Your task to perform on an android device: Open settings on Google Maps Image 0: 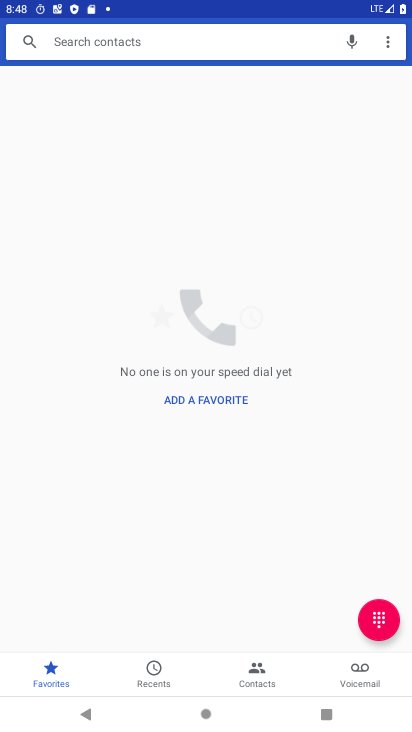
Step 0: press home button
Your task to perform on an android device: Open settings on Google Maps Image 1: 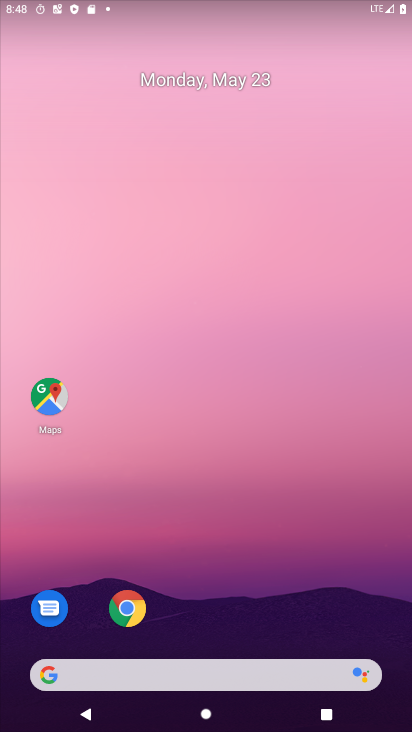
Step 1: click (45, 398)
Your task to perform on an android device: Open settings on Google Maps Image 2: 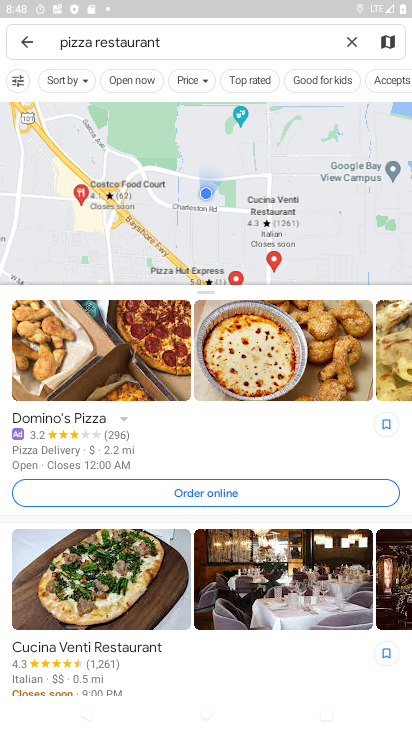
Step 2: click (28, 50)
Your task to perform on an android device: Open settings on Google Maps Image 3: 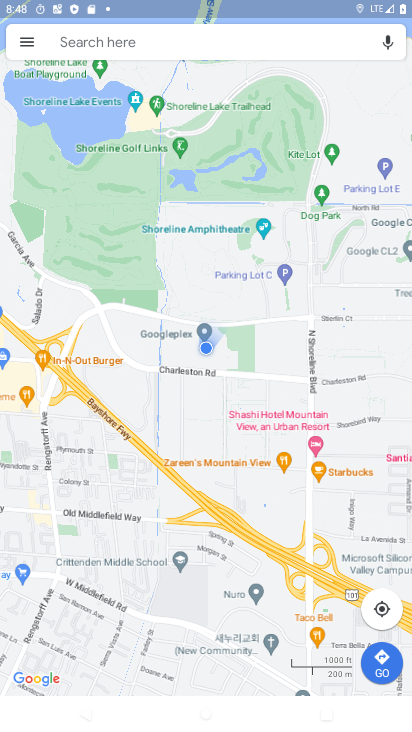
Step 3: click (28, 49)
Your task to perform on an android device: Open settings on Google Maps Image 4: 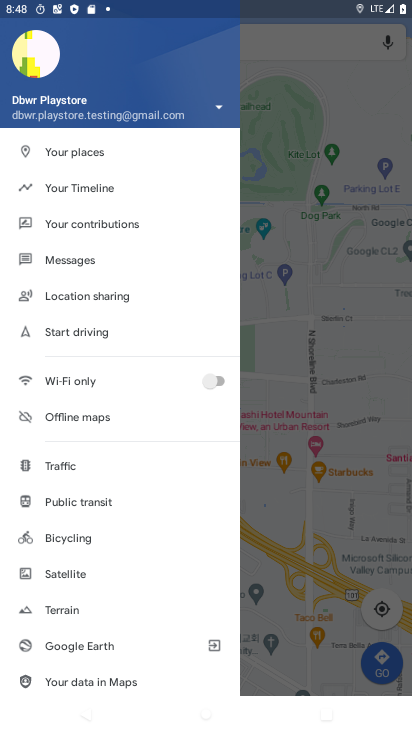
Step 4: drag from (82, 604) to (68, 271)
Your task to perform on an android device: Open settings on Google Maps Image 5: 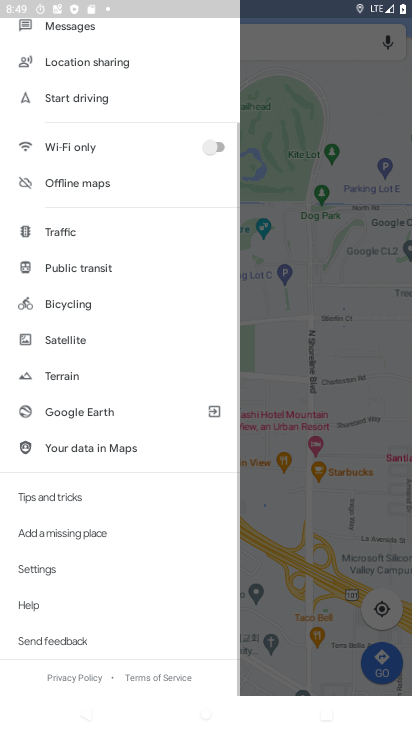
Step 5: click (55, 572)
Your task to perform on an android device: Open settings on Google Maps Image 6: 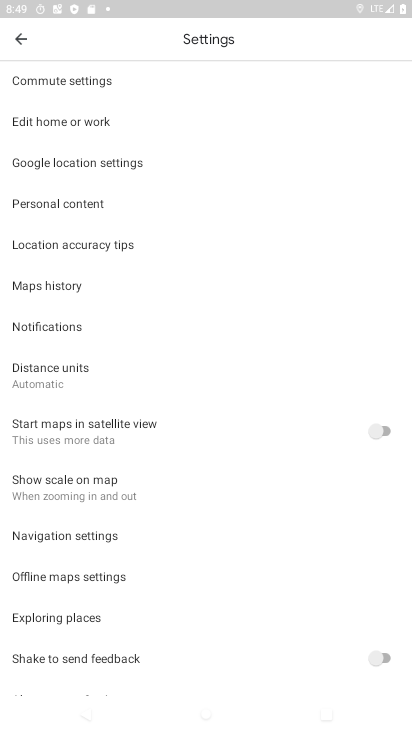
Step 6: task complete